Your task to perform on an android device: read, delete, or share a saved page in the chrome app Image 0: 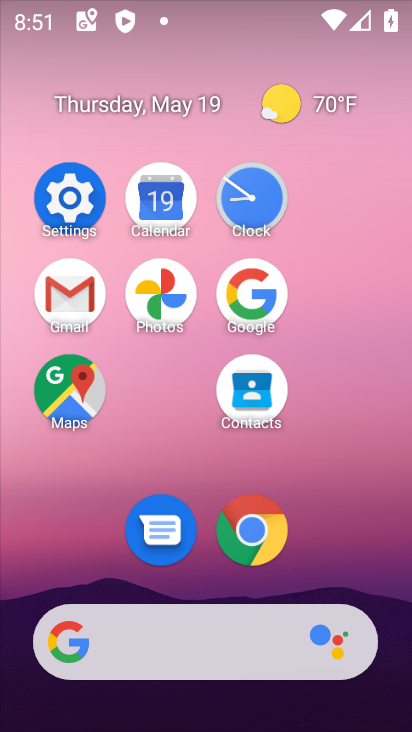
Step 0: click (245, 525)
Your task to perform on an android device: read, delete, or share a saved page in the chrome app Image 1: 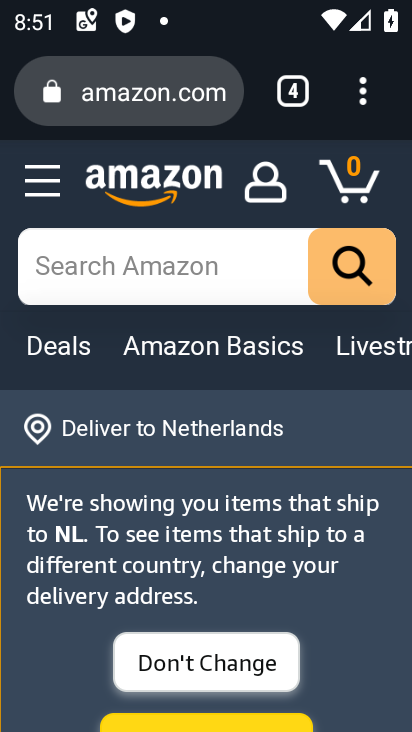
Step 1: click (361, 80)
Your task to perform on an android device: read, delete, or share a saved page in the chrome app Image 2: 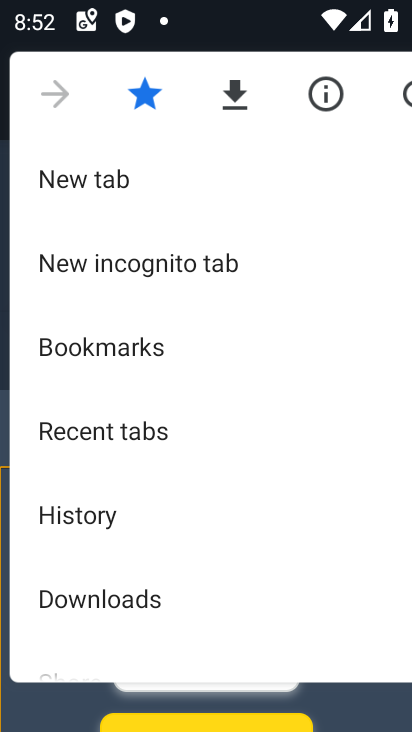
Step 2: click (142, 596)
Your task to perform on an android device: read, delete, or share a saved page in the chrome app Image 3: 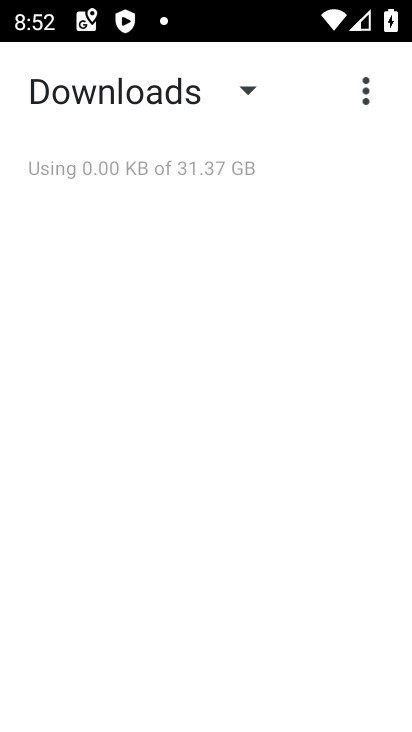
Step 3: task complete